Your task to perform on an android device: toggle notification dots Image 0: 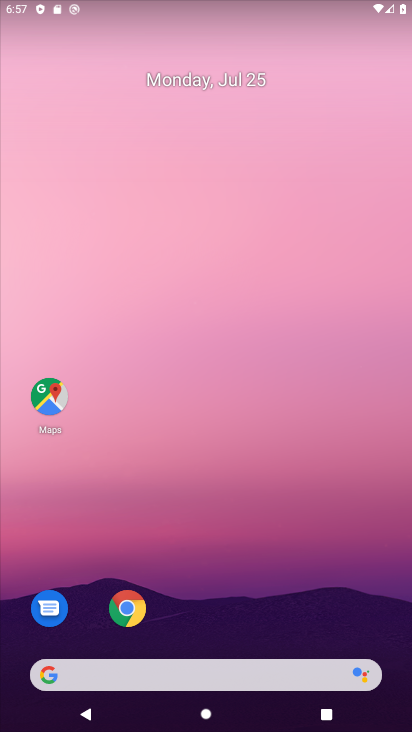
Step 0: drag from (341, 601) to (156, 3)
Your task to perform on an android device: toggle notification dots Image 1: 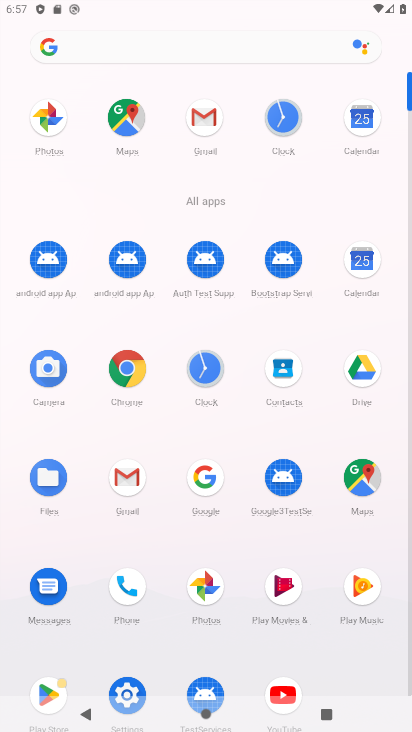
Step 1: click (132, 683)
Your task to perform on an android device: toggle notification dots Image 2: 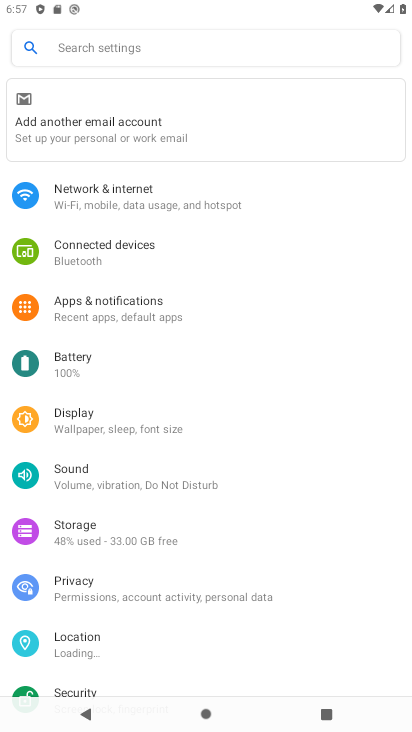
Step 2: click (141, 328)
Your task to perform on an android device: toggle notification dots Image 3: 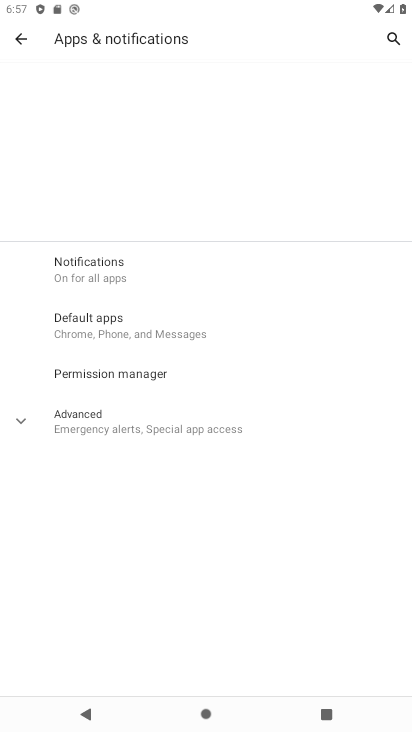
Step 3: click (129, 272)
Your task to perform on an android device: toggle notification dots Image 4: 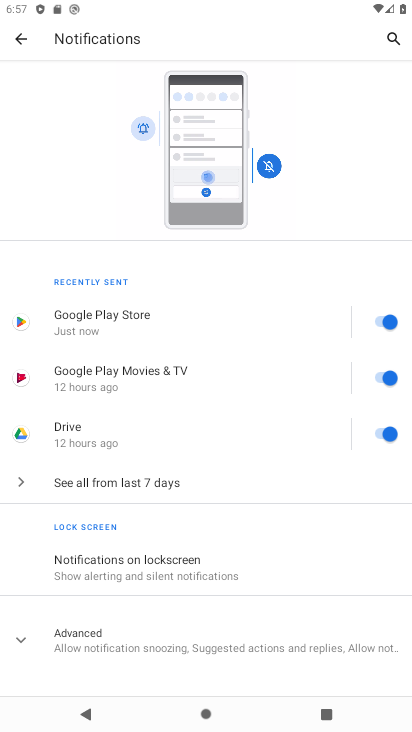
Step 4: click (25, 631)
Your task to perform on an android device: toggle notification dots Image 5: 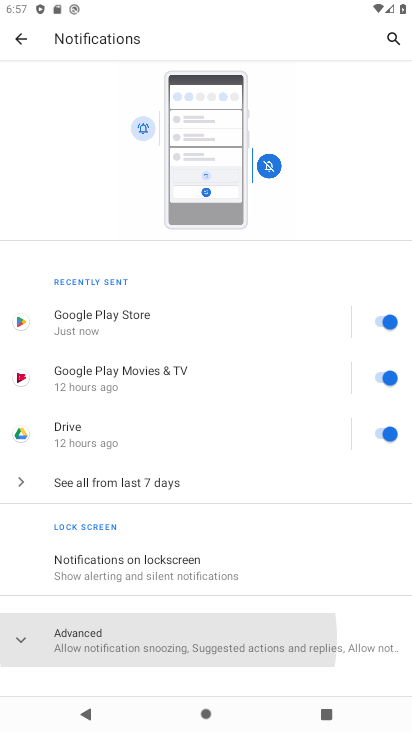
Step 5: drag from (98, 677) to (204, 47)
Your task to perform on an android device: toggle notification dots Image 6: 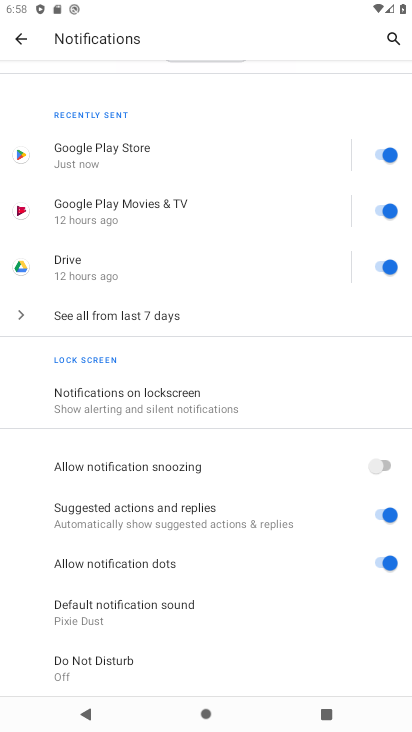
Step 6: click (352, 556)
Your task to perform on an android device: toggle notification dots Image 7: 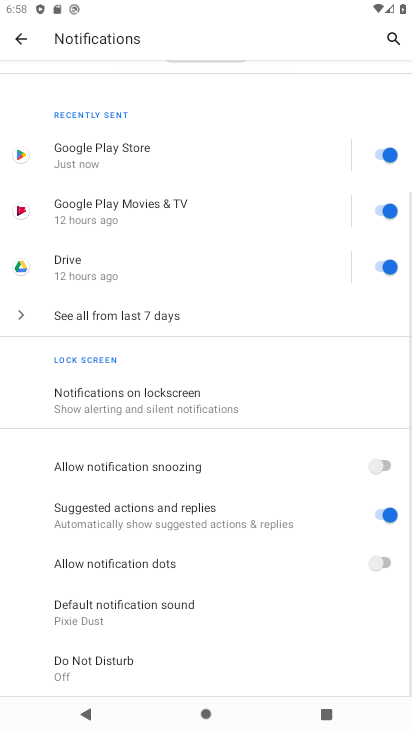
Step 7: task complete